Your task to perform on an android device: Open Youtube and go to "Your channel" Image 0: 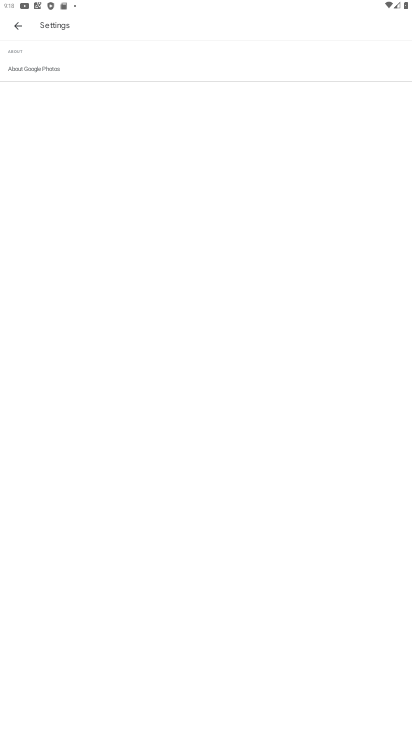
Step 0: press home button
Your task to perform on an android device: Open Youtube and go to "Your channel" Image 1: 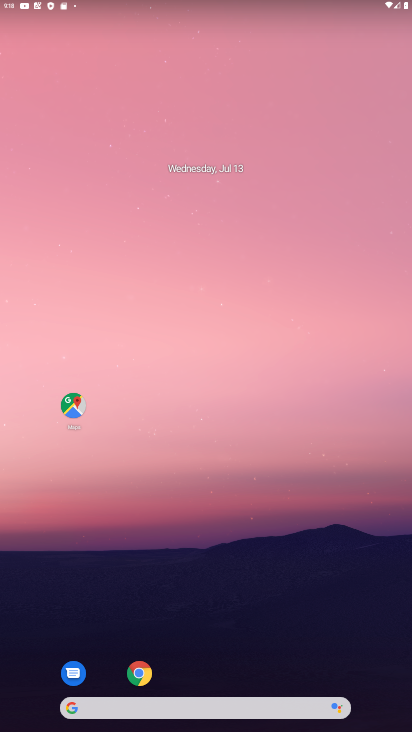
Step 1: drag from (208, 668) to (164, 56)
Your task to perform on an android device: Open Youtube and go to "Your channel" Image 2: 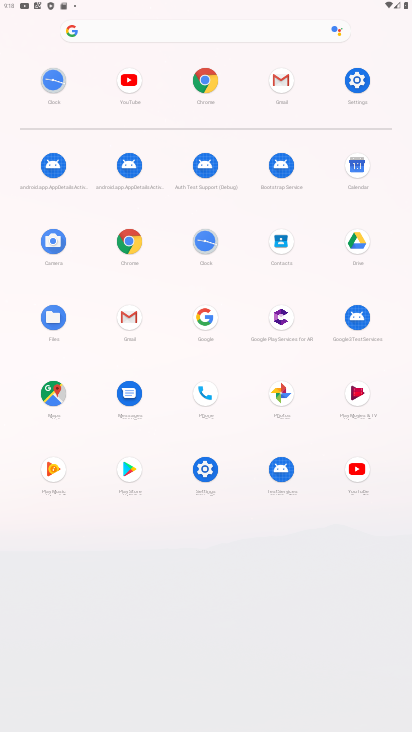
Step 2: click (357, 481)
Your task to perform on an android device: Open Youtube and go to "Your channel" Image 3: 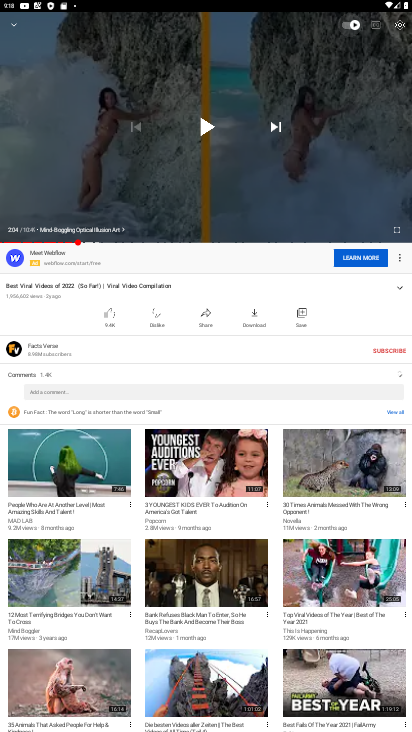
Step 3: click (11, 24)
Your task to perform on an android device: Open Youtube and go to "Your channel" Image 4: 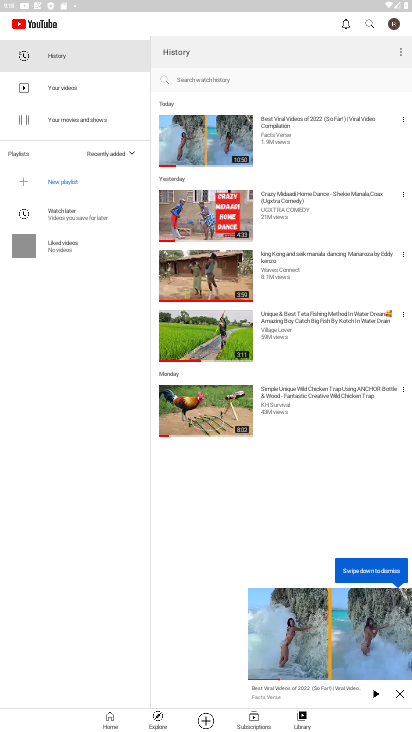
Step 4: click (114, 726)
Your task to perform on an android device: Open Youtube and go to "Your channel" Image 5: 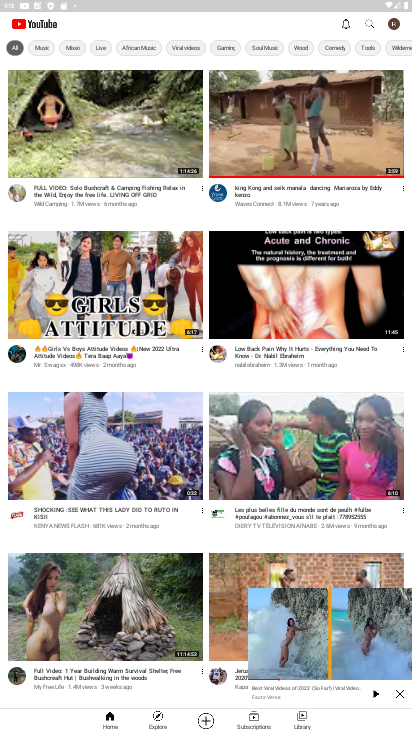
Step 5: click (368, 22)
Your task to perform on an android device: Open Youtube and go to "Your channel" Image 6: 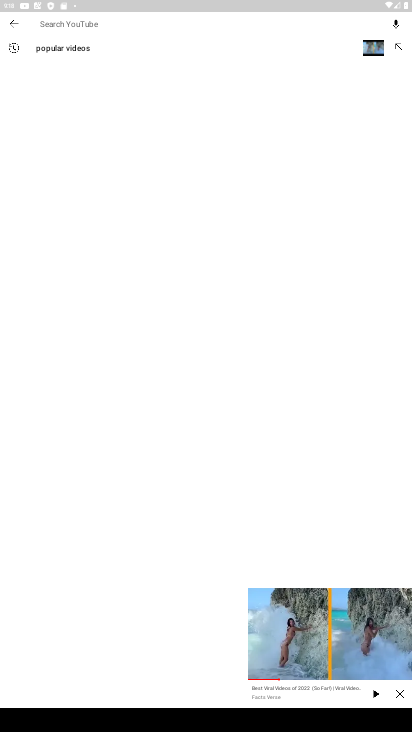
Step 6: type "your channel"
Your task to perform on an android device: Open Youtube and go to "Your channel" Image 7: 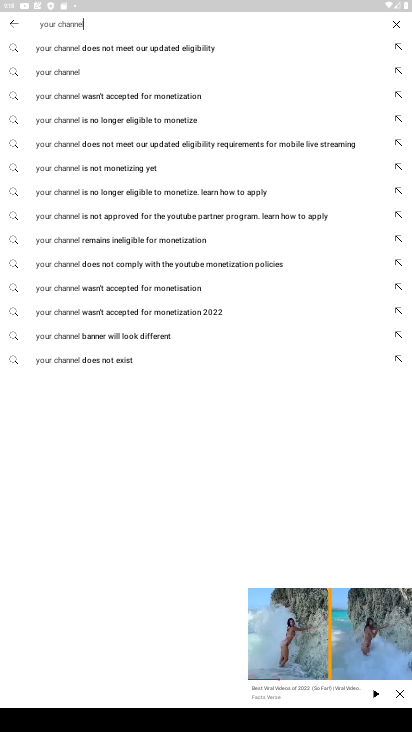
Step 7: click (78, 68)
Your task to perform on an android device: Open Youtube and go to "Your channel" Image 8: 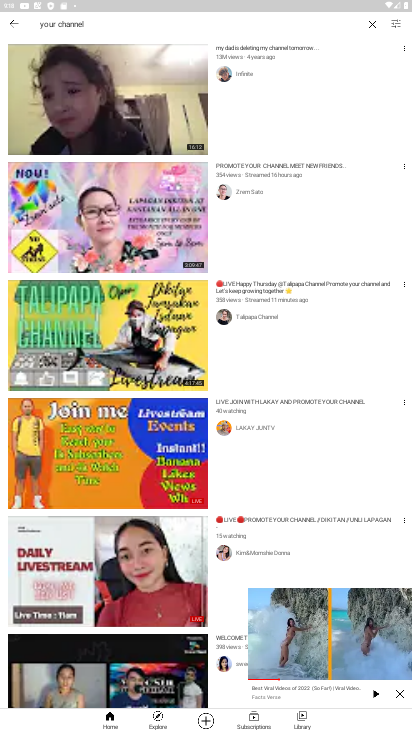
Step 8: task complete